Your task to perform on an android device: turn on data saver in the chrome app Image 0: 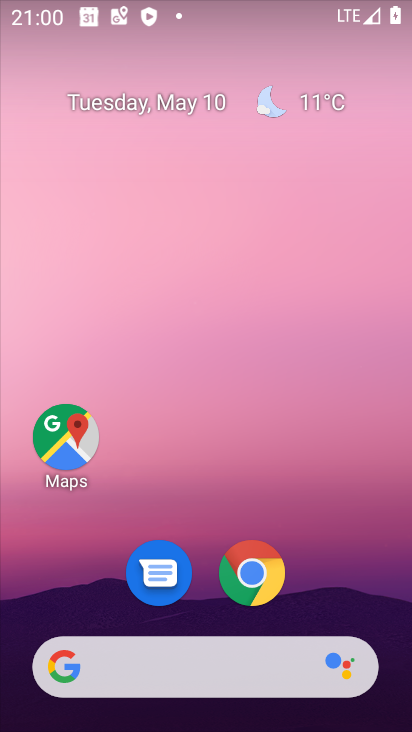
Step 0: click (269, 576)
Your task to perform on an android device: turn on data saver in the chrome app Image 1: 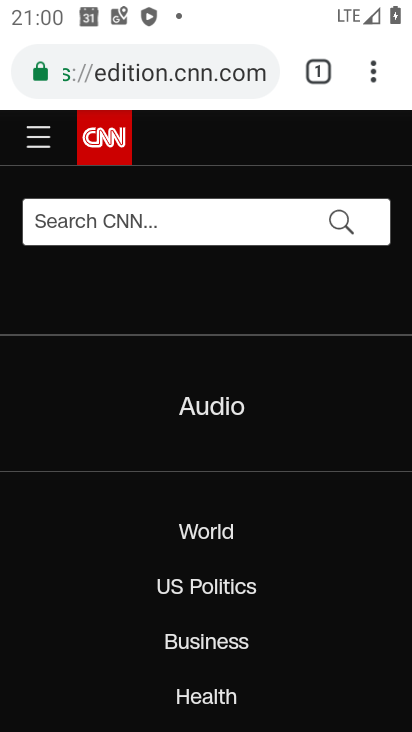
Step 1: click (376, 69)
Your task to perform on an android device: turn on data saver in the chrome app Image 2: 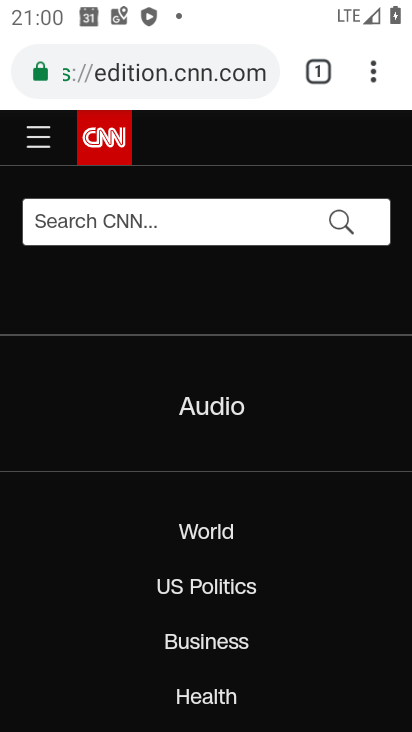
Step 2: click (371, 79)
Your task to perform on an android device: turn on data saver in the chrome app Image 3: 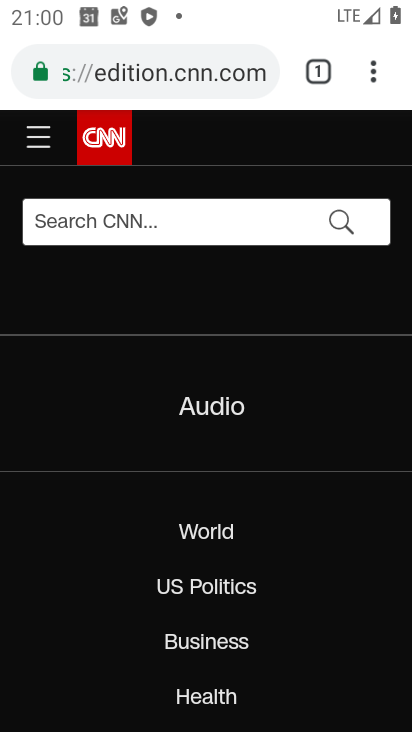
Step 3: drag from (376, 74) to (142, 559)
Your task to perform on an android device: turn on data saver in the chrome app Image 4: 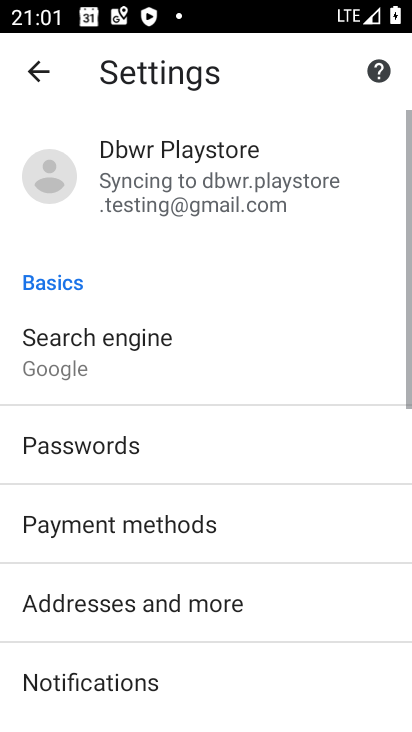
Step 4: drag from (211, 657) to (252, 100)
Your task to perform on an android device: turn on data saver in the chrome app Image 5: 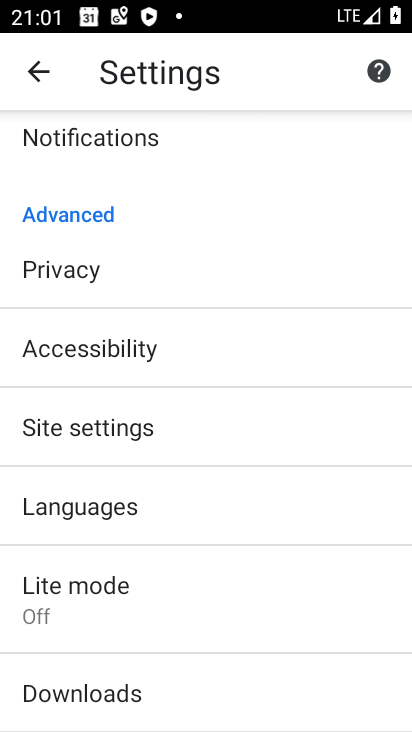
Step 5: click (64, 589)
Your task to perform on an android device: turn on data saver in the chrome app Image 6: 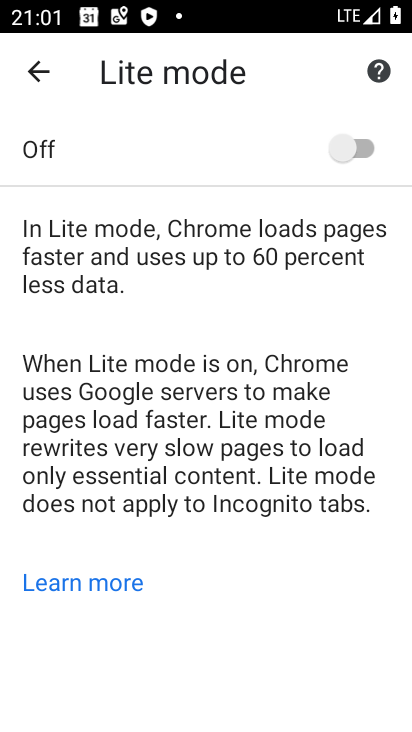
Step 6: click (347, 150)
Your task to perform on an android device: turn on data saver in the chrome app Image 7: 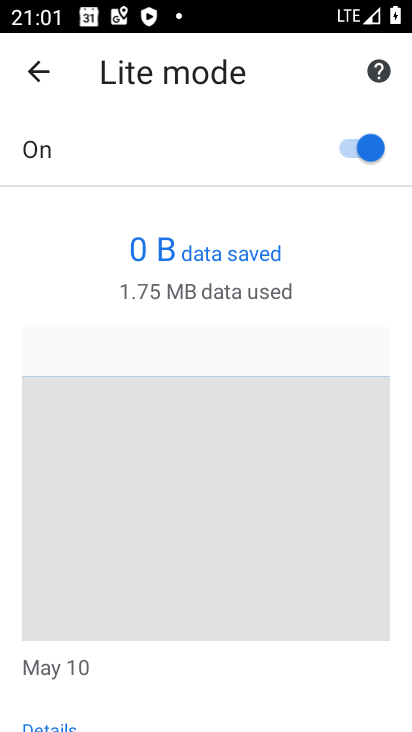
Step 7: task complete